Your task to perform on an android device: Open battery settings Image 0: 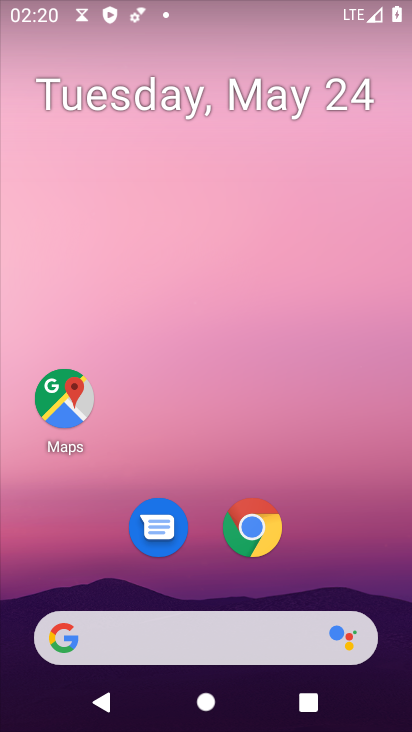
Step 0: press home button
Your task to perform on an android device: Open battery settings Image 1: 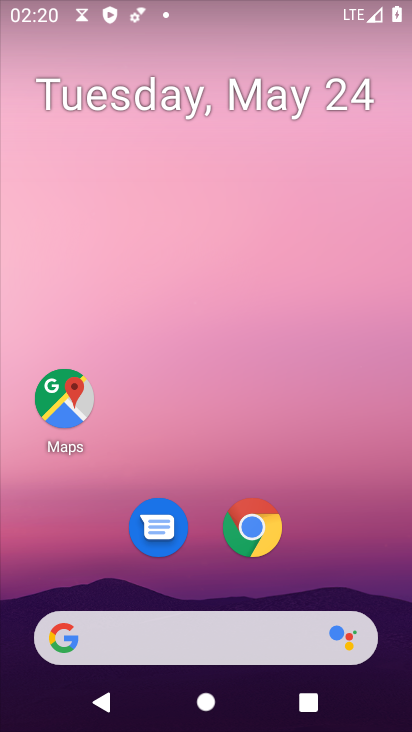
Step 1: drag from (141, 648) to (303, 113)
Your task to perform on an android device: Open battery settings Image 2: 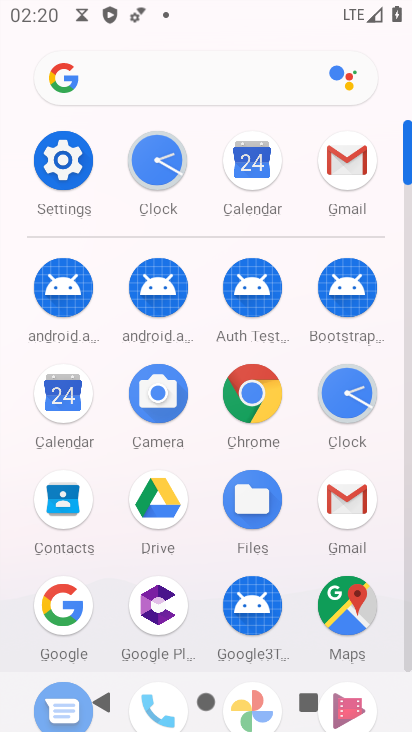
Step 2: click (59, 162)
Your task to perform on an android device: Open battery settings Image 3: 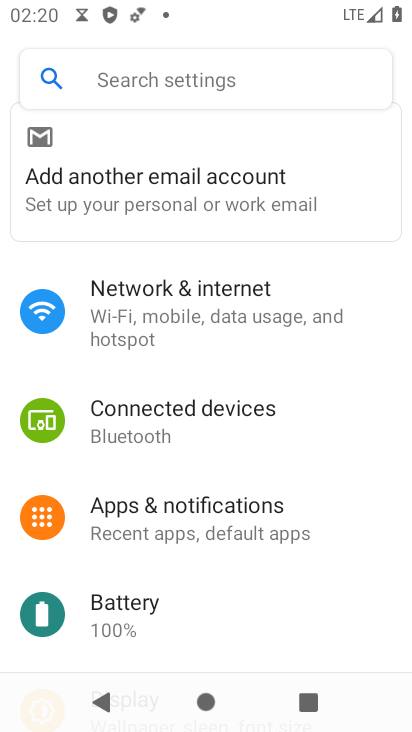
Step 3: click (141, 612)
Your task to perform on an android device: Open battery settings Image 4: 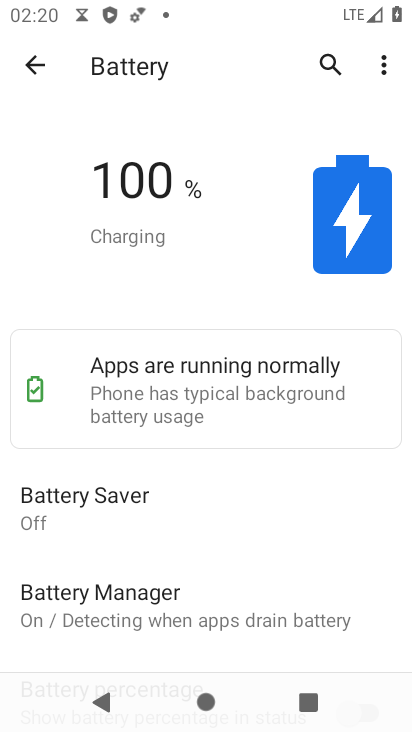
Step 4: task complete